Your task to perform on an android device: Open battery settings Image 0: 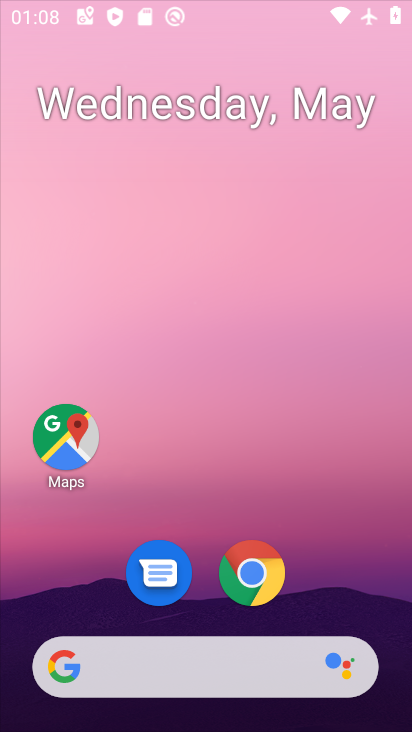
Step 0: click (268, 570)
Your task to perform on an android device: Open battery settings Image 1: 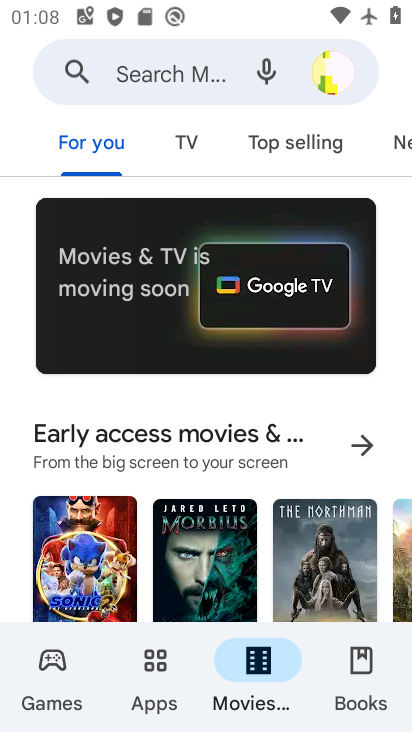
Step 1: press home button
Your task to perform on an android device: Open battery settings Image 2: 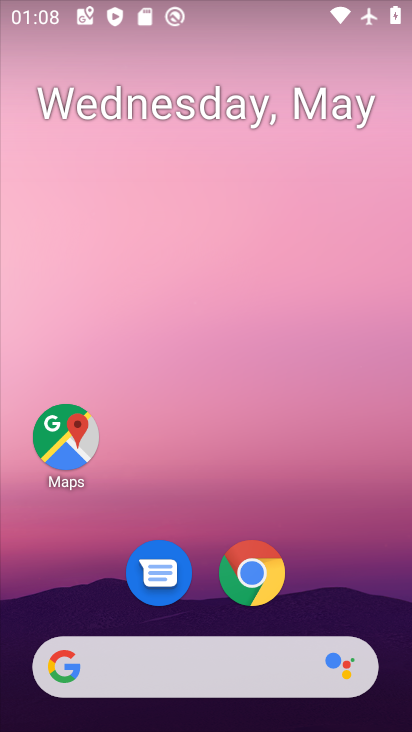
Step 2: drag from (188, 541) to (199, 154)
Your task to perform on an android device: Open battery settings Image 3: 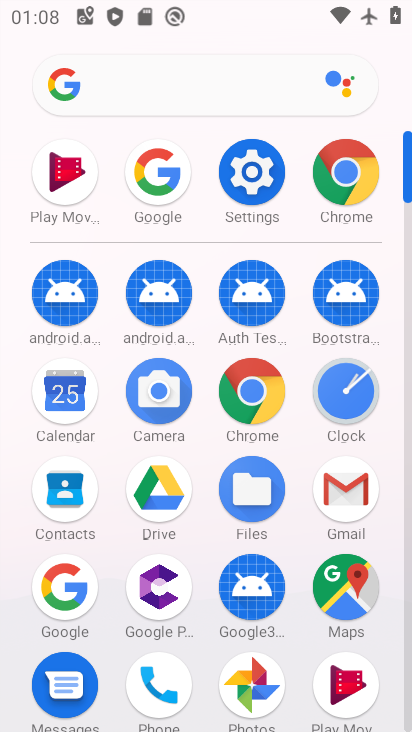
Step 3: click (241, 149)
Your task to perform on an android device: Open battery settings Image 4: 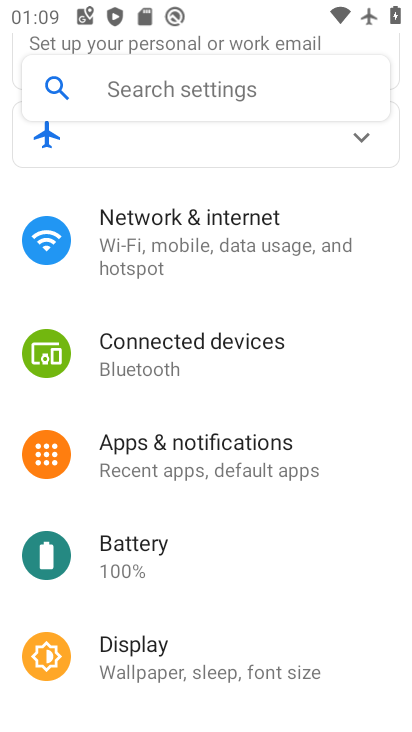
Step 4: click (202, 551)
Your task to perform on an android device: Open battery settings Image 5: 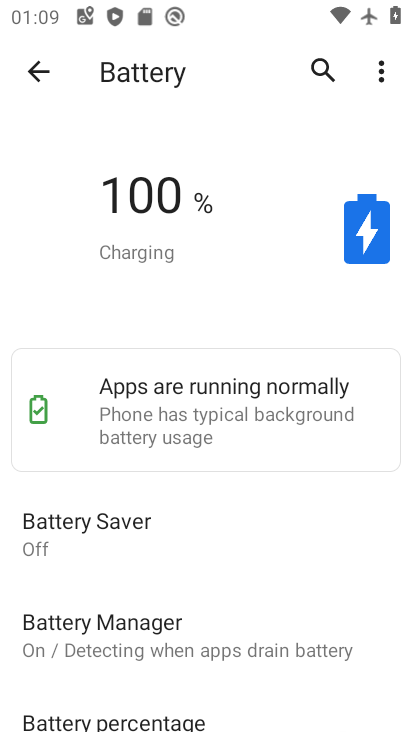
Step 5: task complete